Your task to perform on an android device: move a message to another label in the gmail app Image 0: 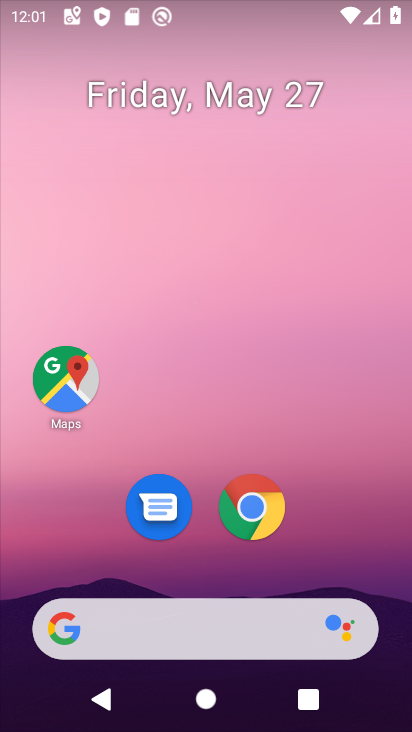
Step 0: drag from (345, 533) to (296, 54)
Your task to perform on an android device: move a message to another label in the gmail app Image 1: 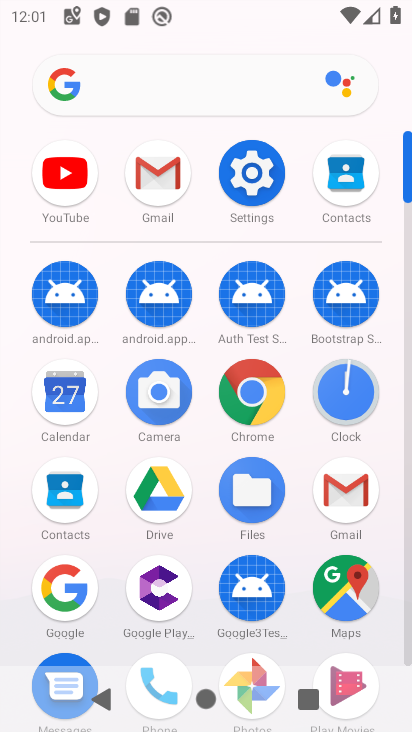
Step 1: click (344, 460)
Your task to perform on an android device: move a message to another label in the gmail app Image 2: 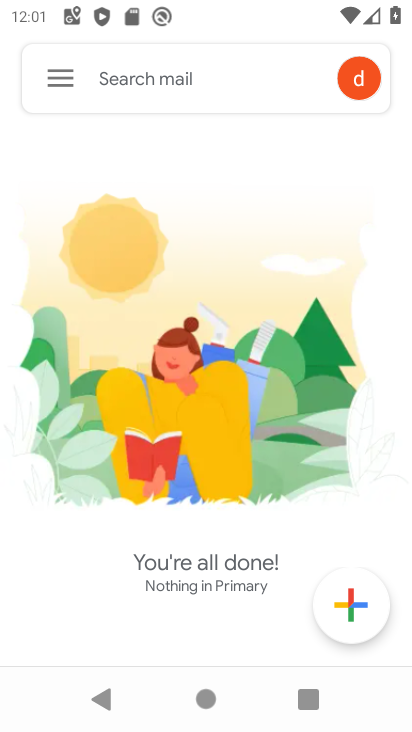
Step 2: click (42, 73)
Your task to perform on an android device: move a message to another label in the gmail app Image 3: 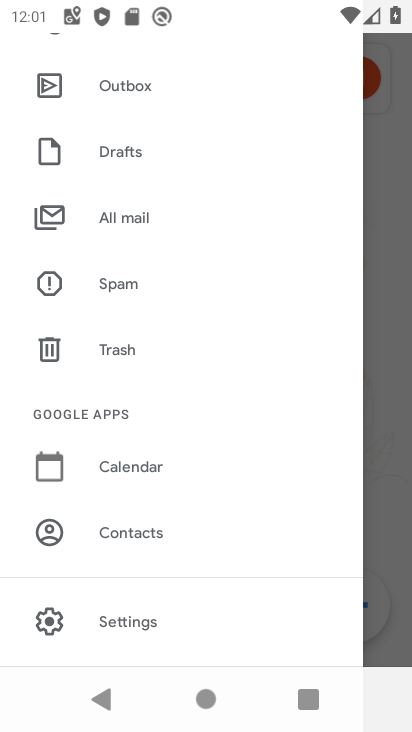
Step 3: drag from (212, 606) to (217, 229)
Your task to perform on an android device: move a message to another label in the gmail app Image 4: 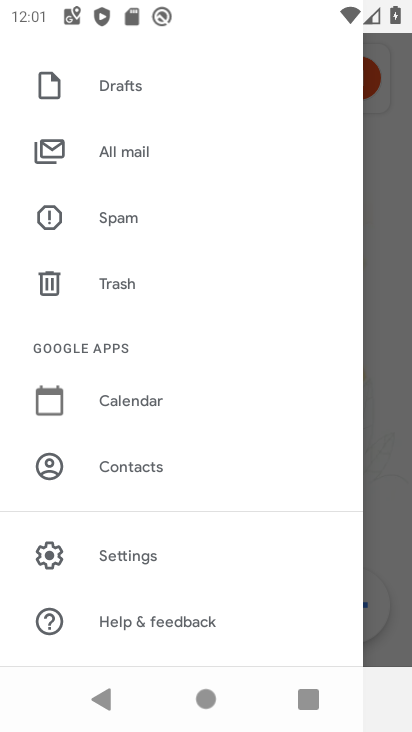
Step 4: click (121, 144)
Your task to perform on an android device: move a message to another label in the gmail app Image 5: 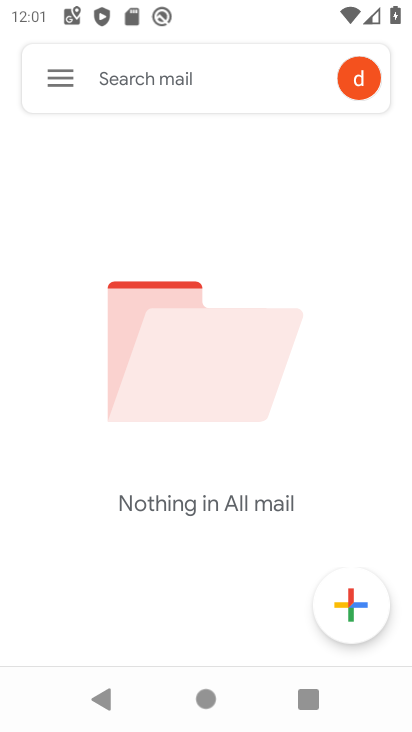
Step 5: task complete